Your task to perform on an android device: open a bookmark in the chrome app Image 0: 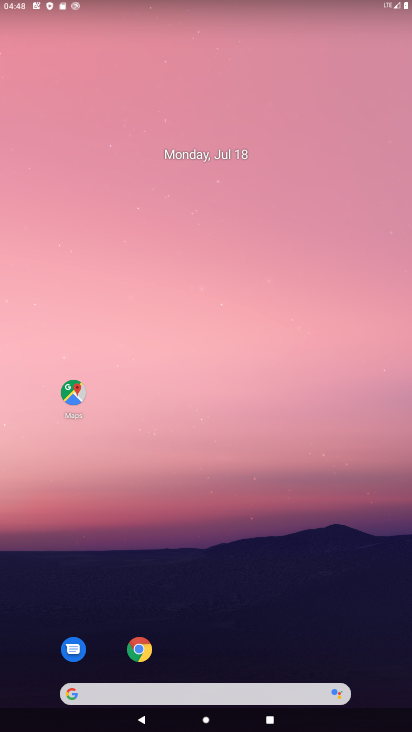
Step 0: click (140, 658)
Your task to perform on an android device: open a bookmark in the chrome app Image 1: 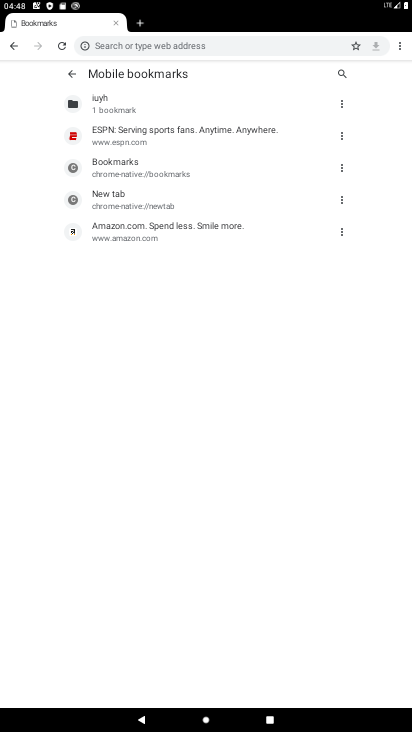
Step 1: click (403, 52)
Your task to perform on an android device: open a bookmark in the chrome app Image 2: 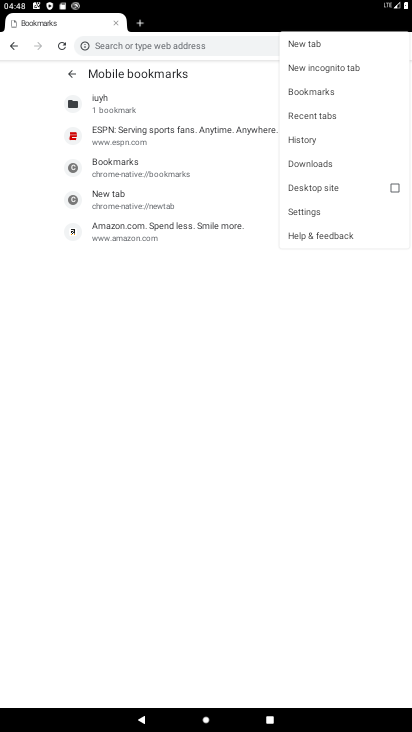
Step 2: click (312, 99)
Your task to perform on an android device: open a bookmark in the chrome app Image 3: 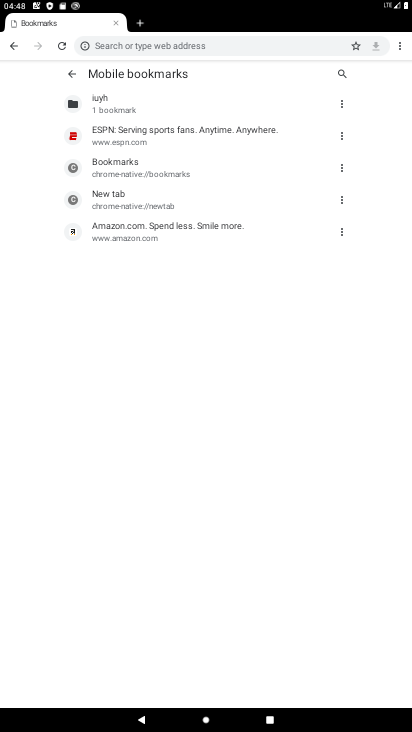
Step 3: click (198, 223)
Your task to perform on an android device: open a bookmark in the chrome app Image 4: 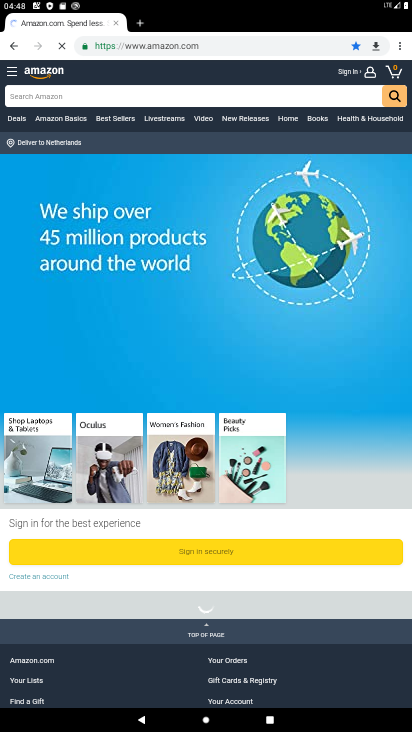
Step 4: task complete